Your task to perform on an android device: When is my next appointment? Image 0: 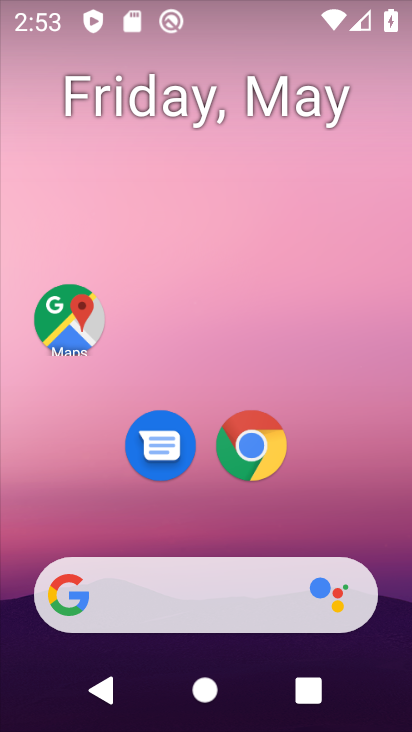
Step 0: drag from (396, 597) to (104, 128)
Your task to perform on an android device: When is my next appointment? Image 1: 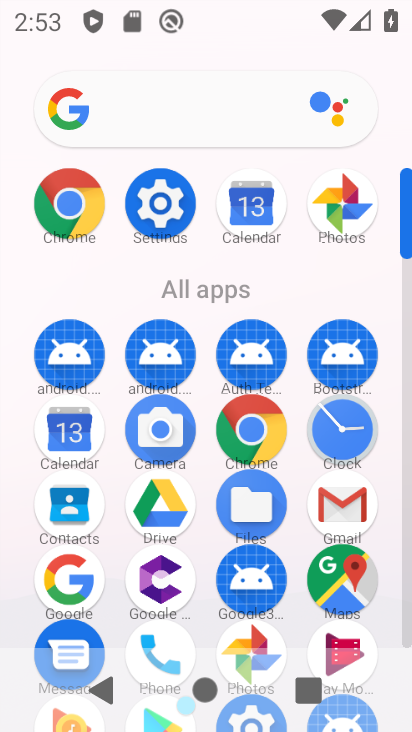
Step 1: click (76, 440)
Your task to perform on an android device: When is my next appointment? Image 2: 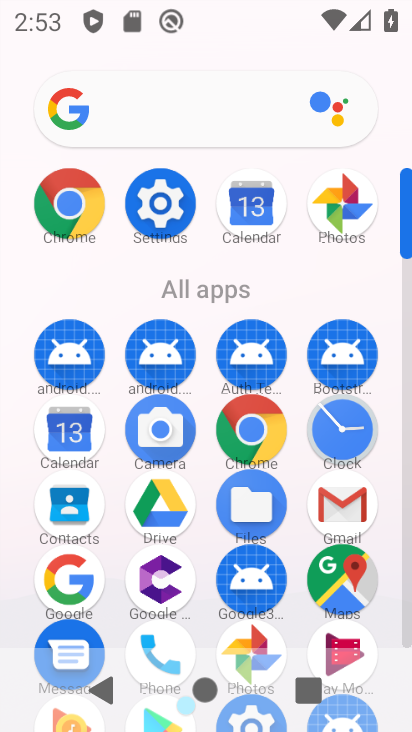
Step 2: click (76, 440)
Your task to perform on an android device: When is my next appointment? Image 3: 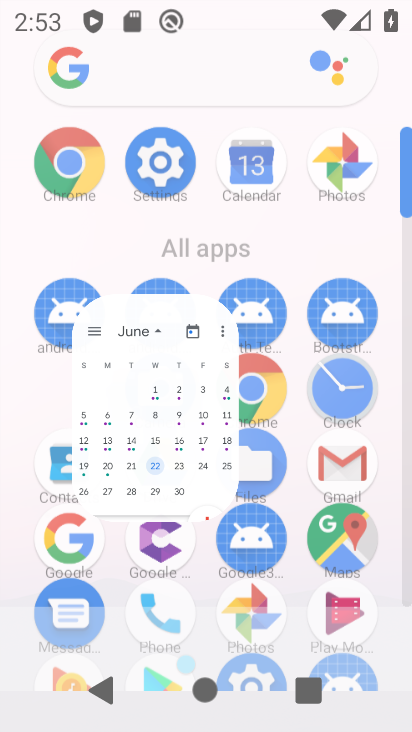
Step 3: click (76, 441)
Your task to perform on an android device: When is my next appointment? Image 4: 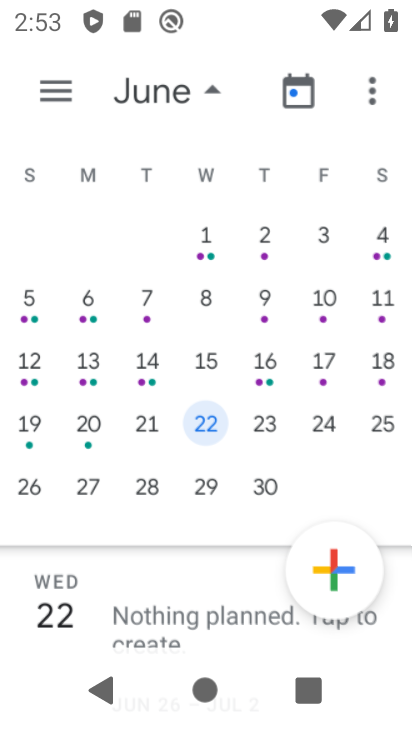
Step 4: click (76, 441)
Your task to perform on an android device: When is my next appointment? Image 5: 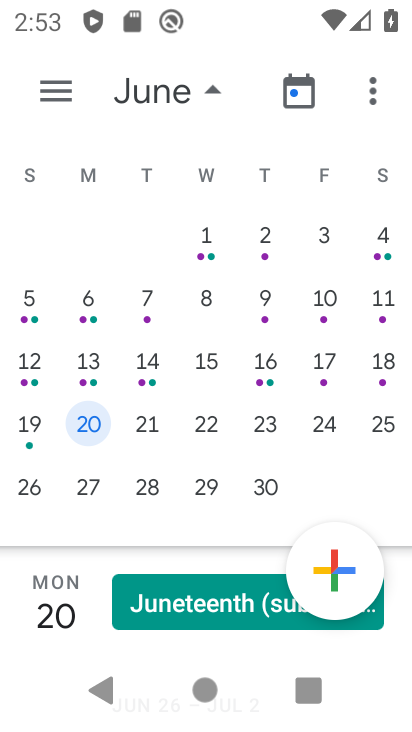
Step 5: drag from (132, 555) to (168, 80)
Your task to perform on an android device: When is my next appointment? Image 6: 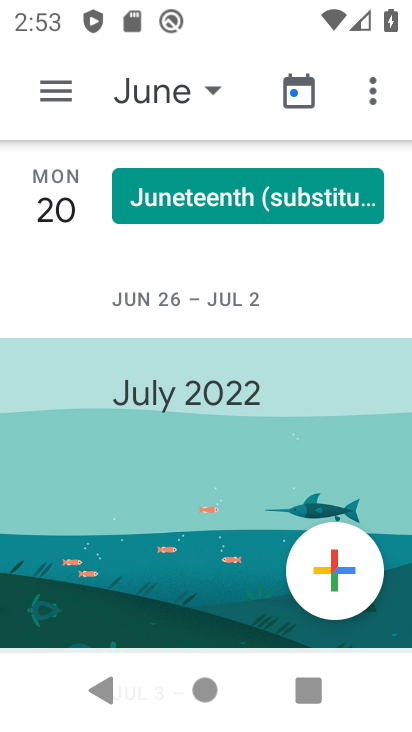
Step 6: drag from (184, 524) to (147, 24)
Your task to perform on an android device: When is my next appointment? Image 7: 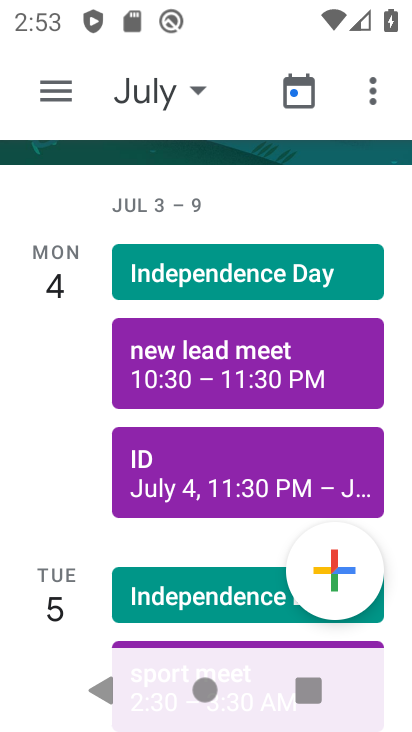
Step 7: drag from (223, 394) to (171, 13)
Your task to perform on an android device: When is my next appointment? Image 8: 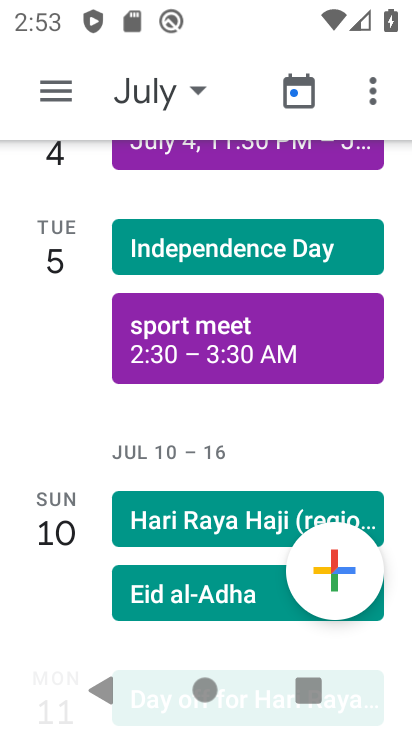
Step 8: drag from (117, 17) to (163, 339)
Your task to perform on an android device: When is my next appointment? Image 9: 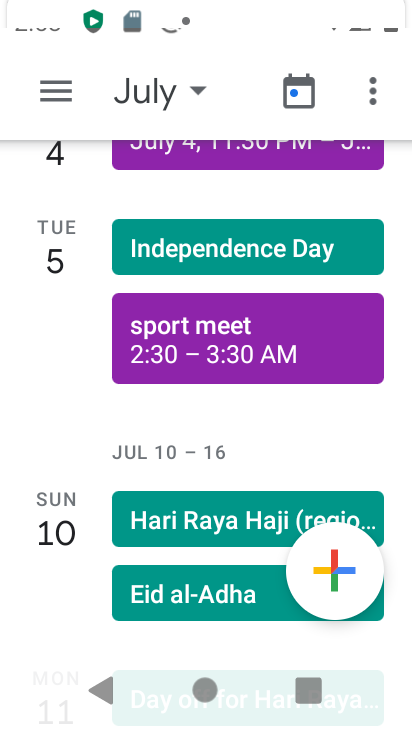
Step 9: click (163, 339)
Your task to perform on an android device: When is my next appointment? Image 10: 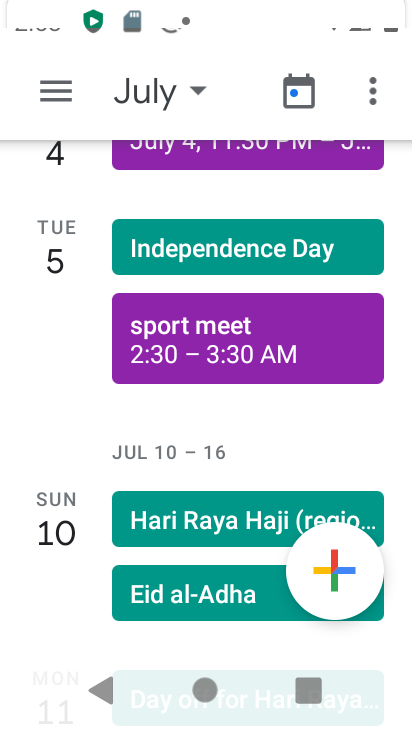
Step 10: click (166, 335)
Your task to perform on an android device: When is my next appointment? Image 11: 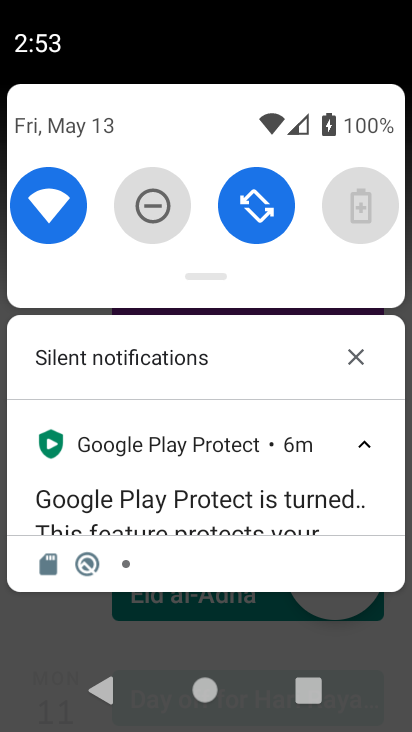
Step 11: click (169, 326)
Your task to perform on an android device: When is my next appointment? Image 12: 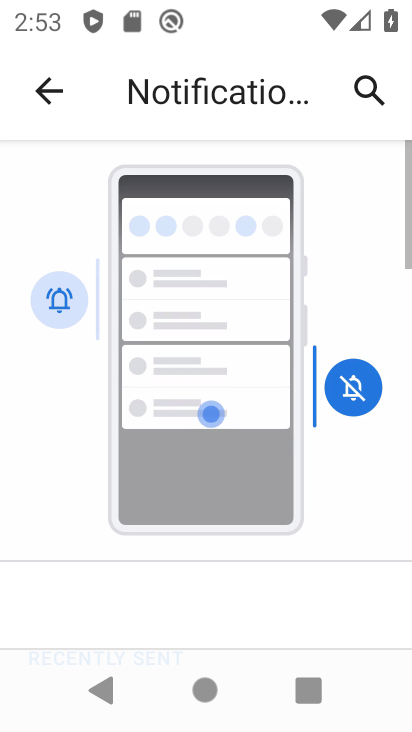
Step 12: task complete